Your task to perform on an android device: open app "Skype" Image 0: 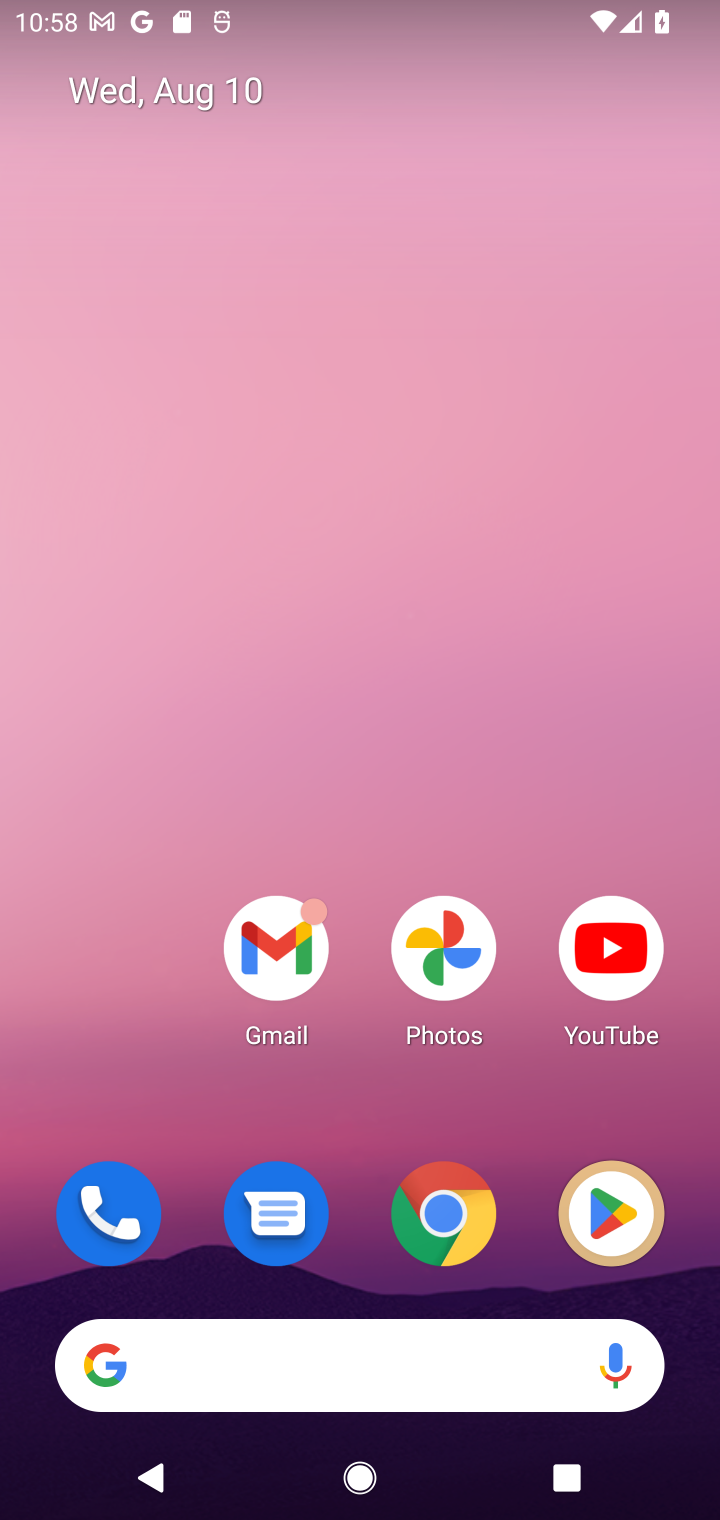
Step 0: drag from (347, 1328) to (405, 204)
Your task to perform on an android device: open app "Skype" Image 1: 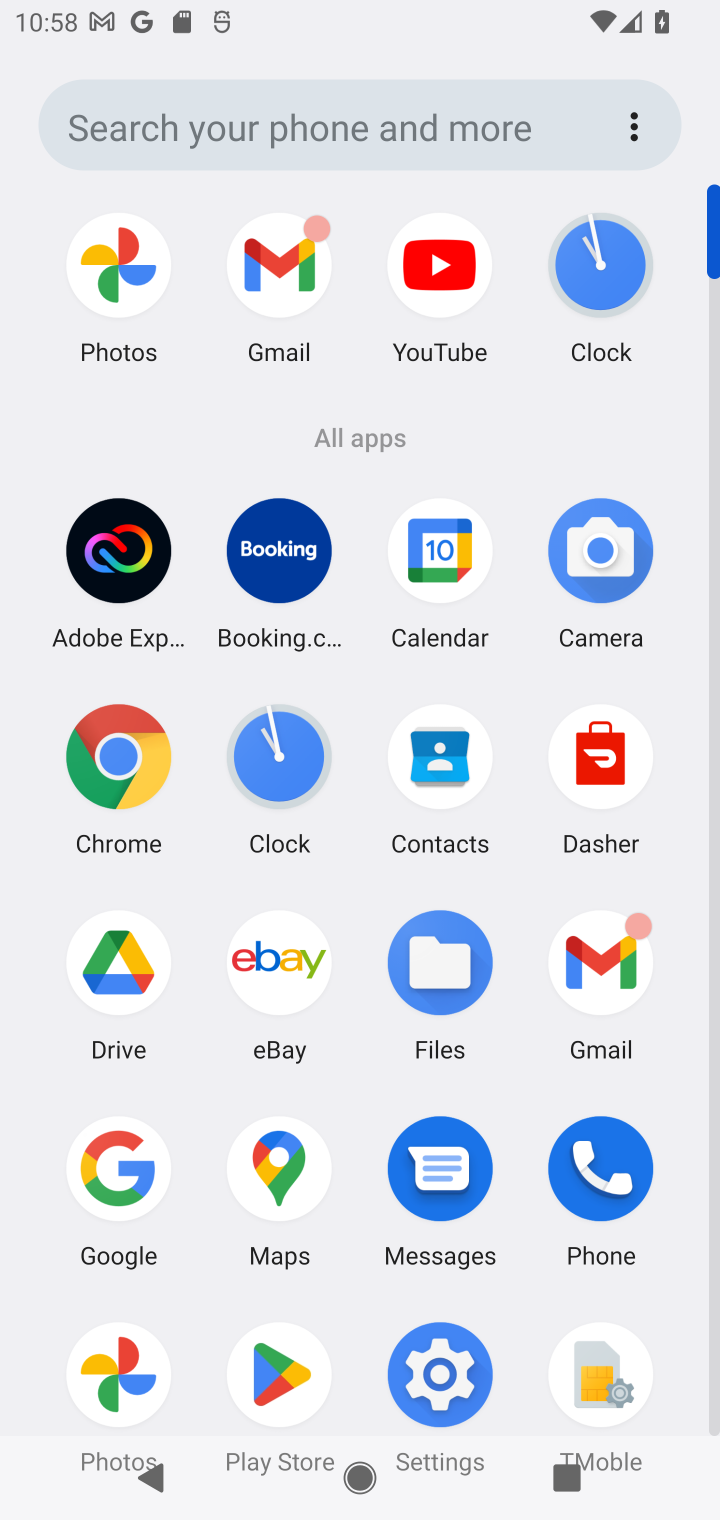
Step 1: click (286, 1378)
Your task to perform on an android device: open app "Skype" Image 2: 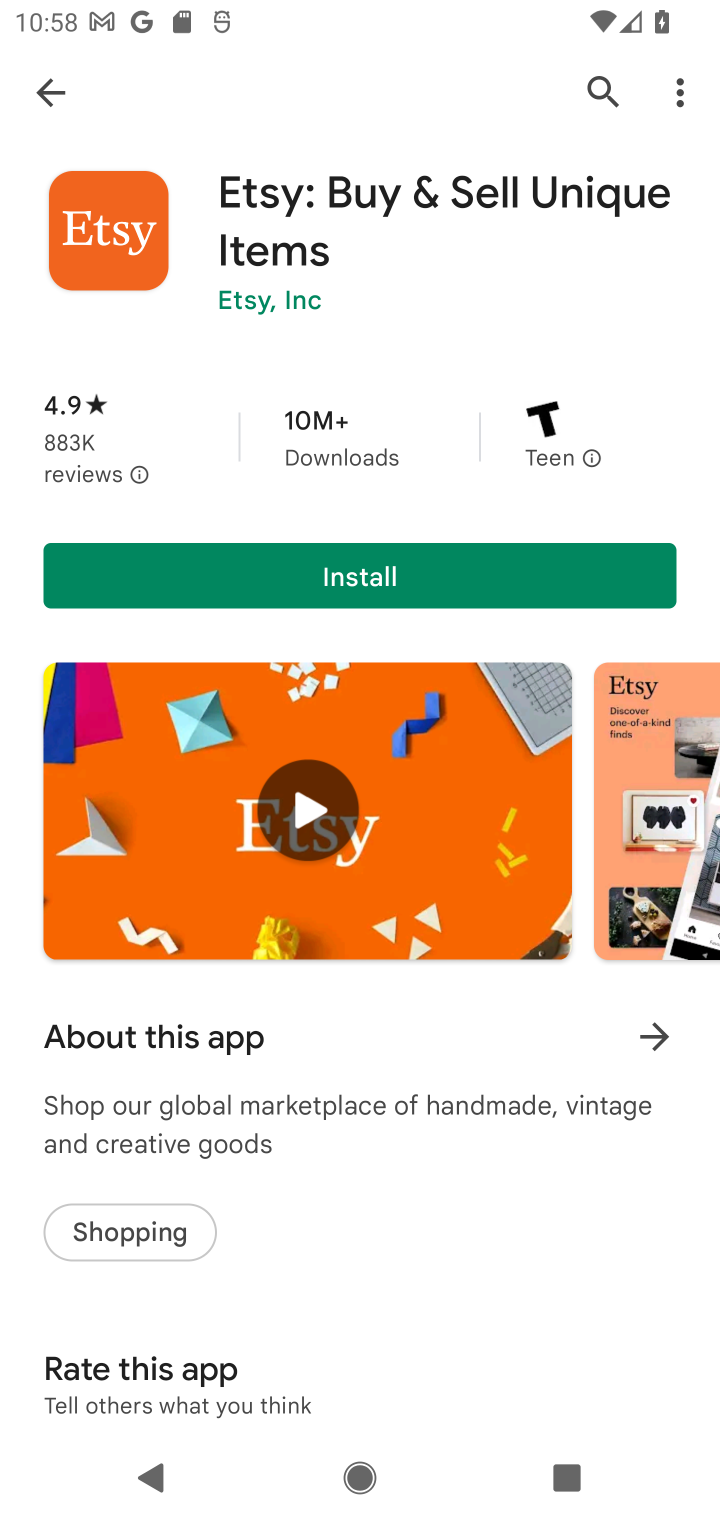
Step 2: press back button
Your task to perform on an android device: open app "Skype" Image 3: 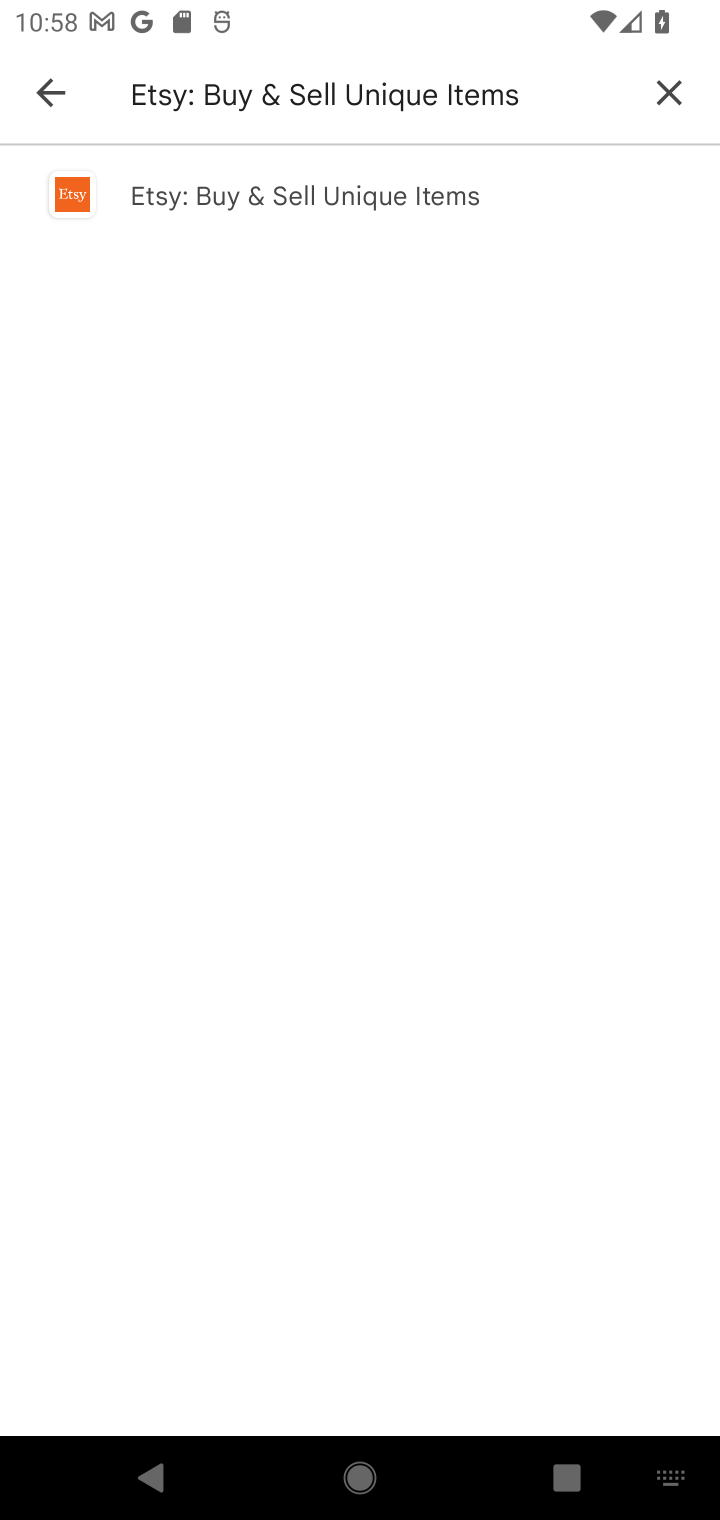
Step 3: press back button
Your task to perform on an android device: open app "Skype" Image 4: 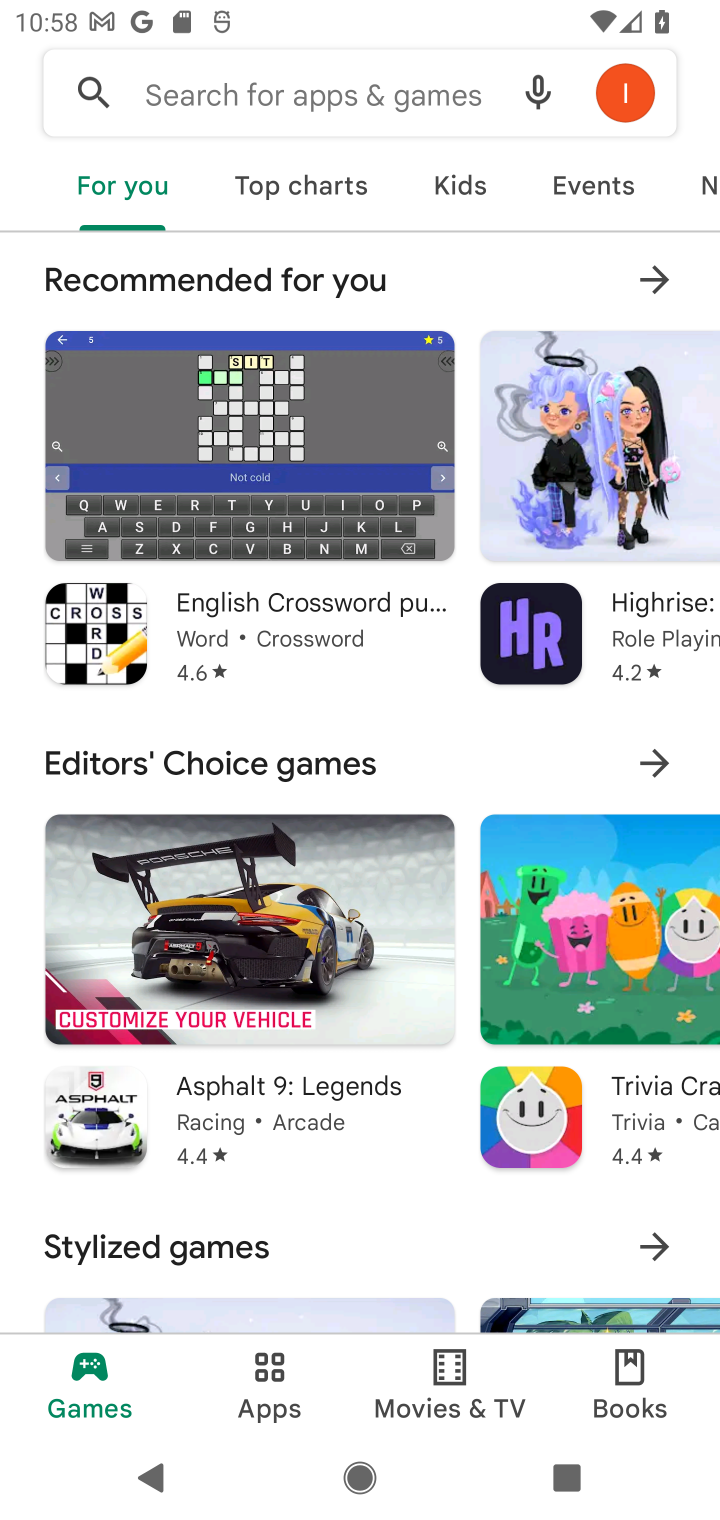
Step 4: click (358, 106)
Your task to perform on an android device: open app "Skype" Image 5: 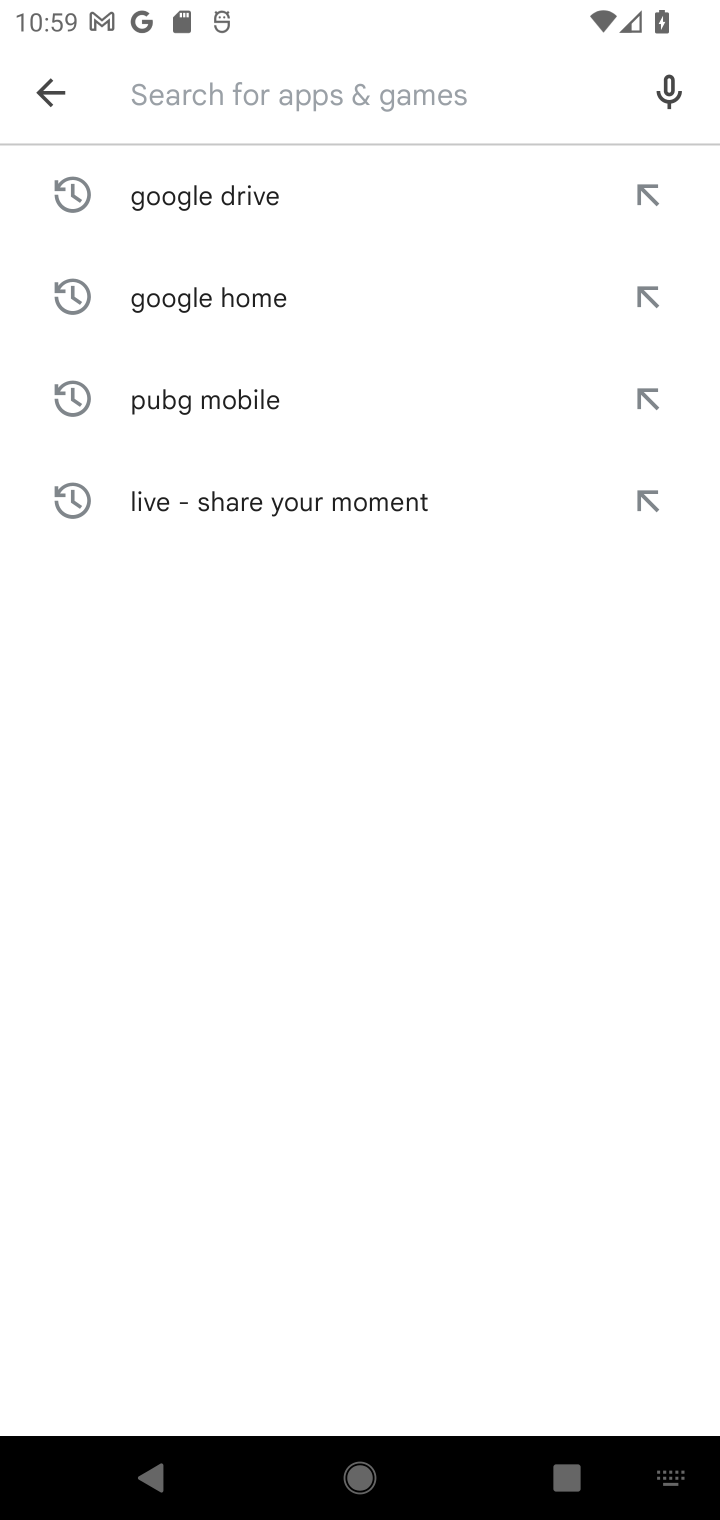
Step 5: type "Skype"
Your task to perform on an android device: open app "Skype" Image 6: 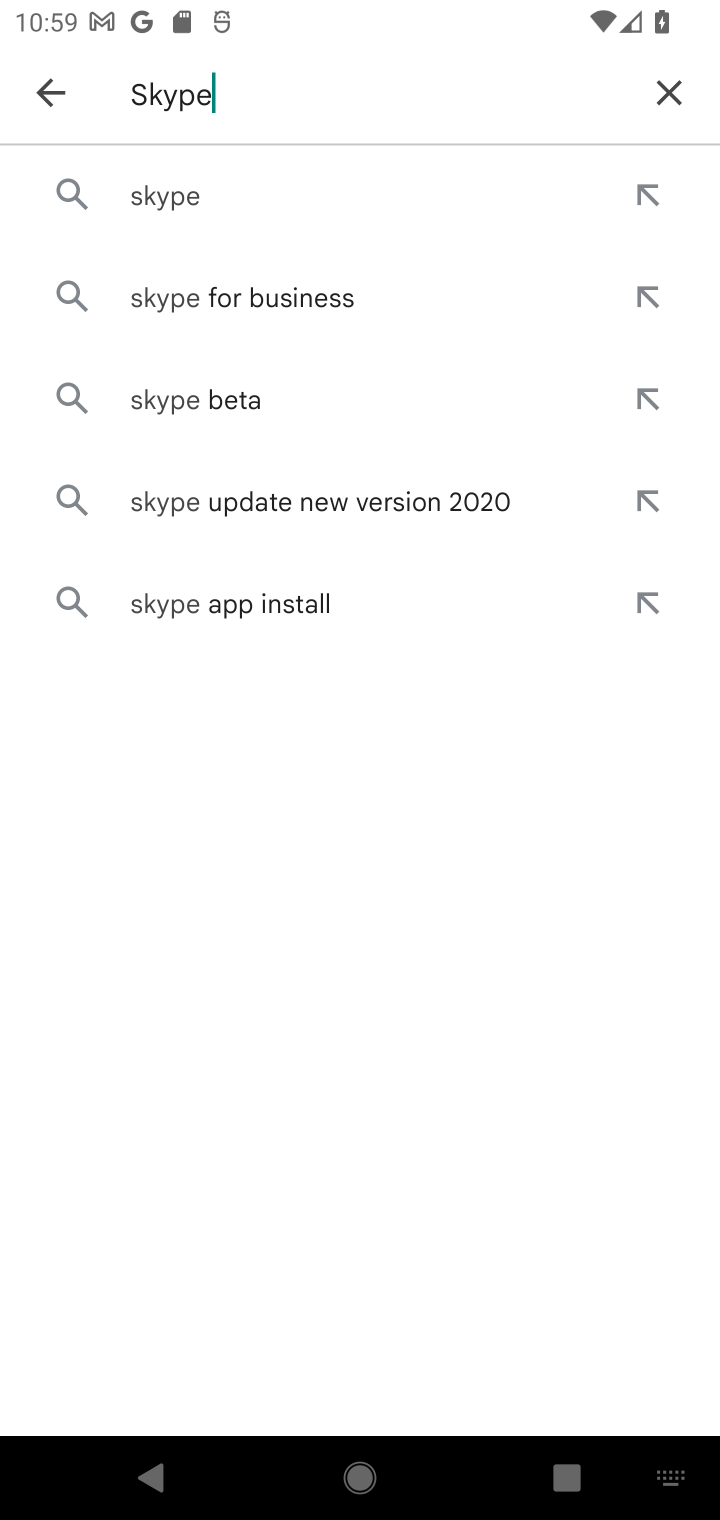
Step 6: click (201, 191)
Your task to perform on an android device: open app "Skype" Image 7: 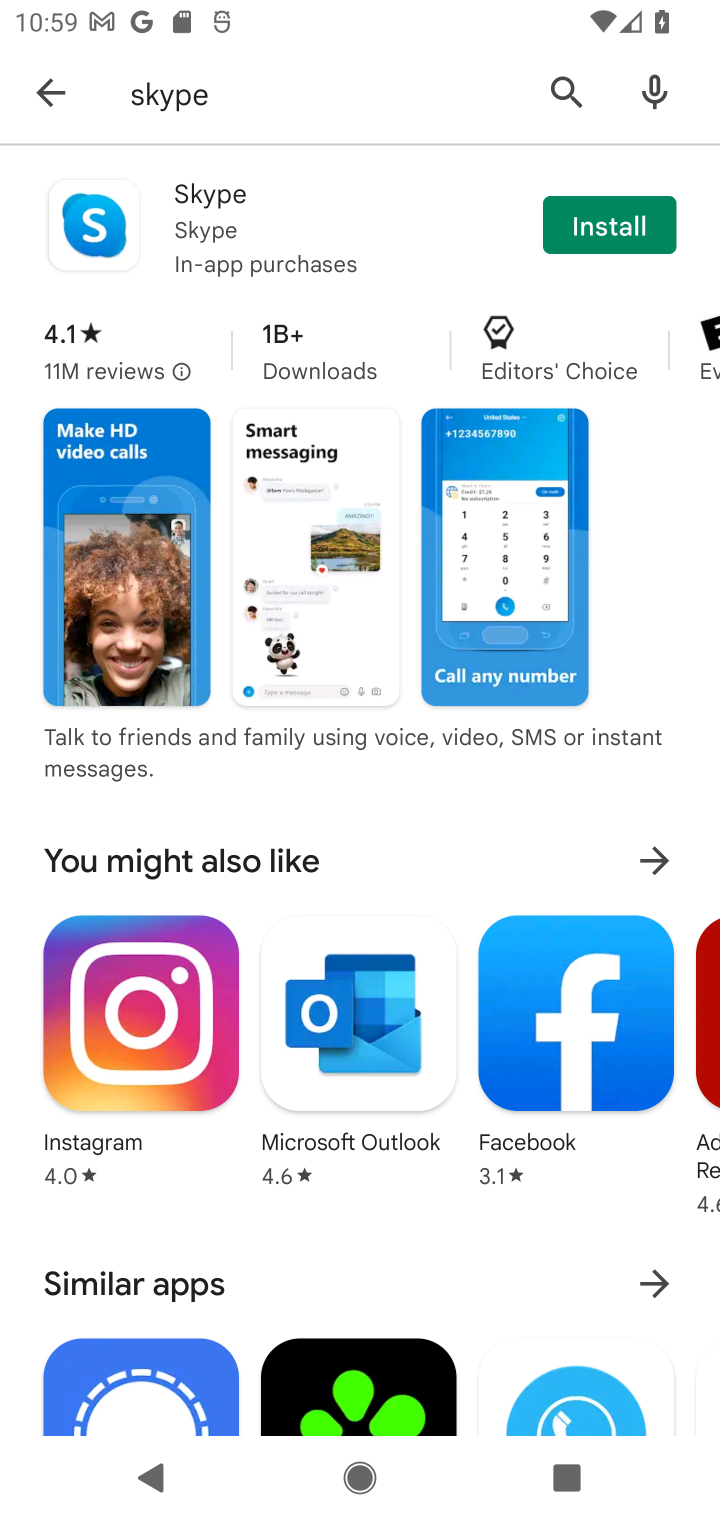
Step 7: task complete